Your task to perform on an android device: change text size in settings app Image 0: 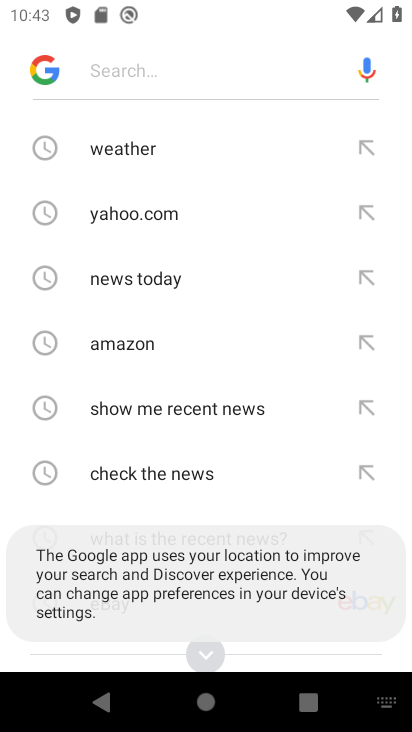
Step 0: press home button
Your task to perform on an android device: change text size in settings app Image 1: 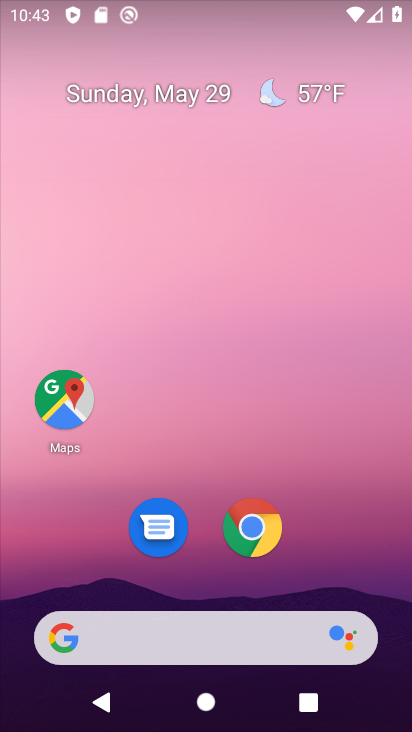
Step 1: drag from (334, 540) to (269, 80)
Your task to perform on an android device: change text size in settings app Image 2: 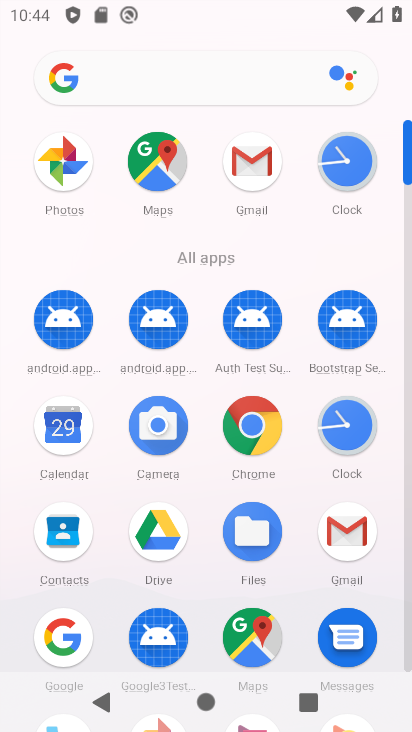
Step 2: drag from (306, 271) to (351, 135)
Your task to perform on an android device: change text size in settings app Image 3: 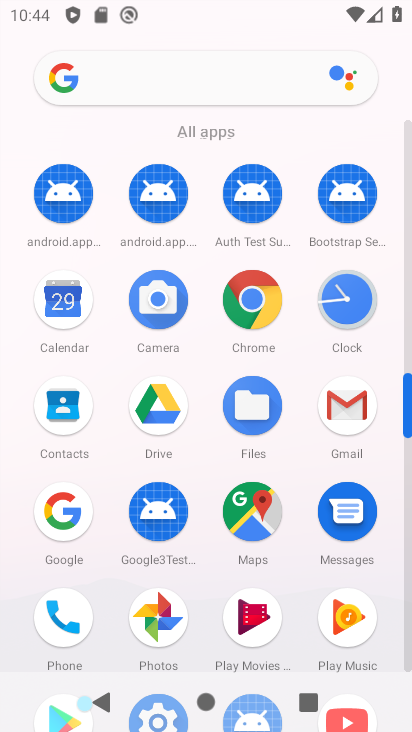
Step 3: drag from (291, 580) to (307, 359)
Your task to perform on an android device: change text size in settings app Image 4: 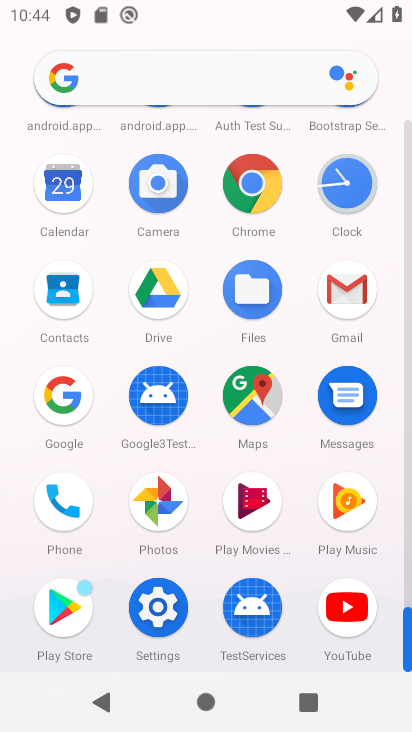
Step 4: click (156, 608)
Your task to perform on an android device: change text size in settings app Image 5: 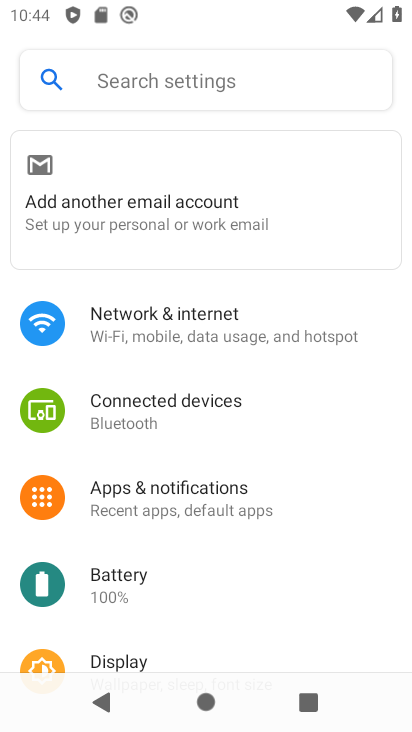
Step 5: drag from (166, 559) to (235, 428)
Your task to perform on an android device: change text size in settings app Image 6: 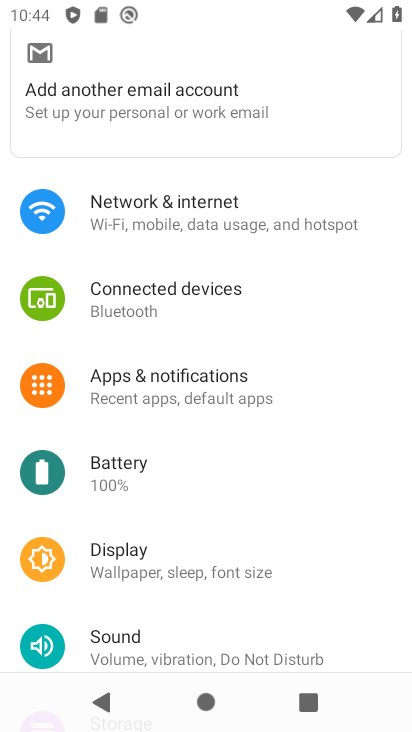
Step 6: drag from (184, 531) to (235, 415)
Your task to perform on an android device: change text size in settings app Image 7: 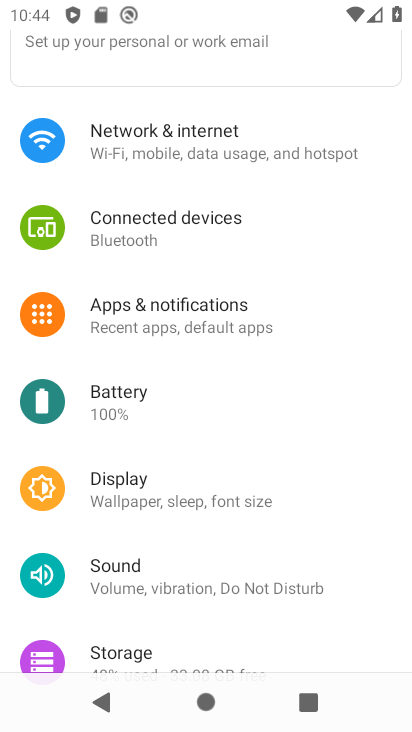
Step 7: drag from (163, 554) to (250, 410)
Your task to perform on an android device: change text size in settings app Image 8: 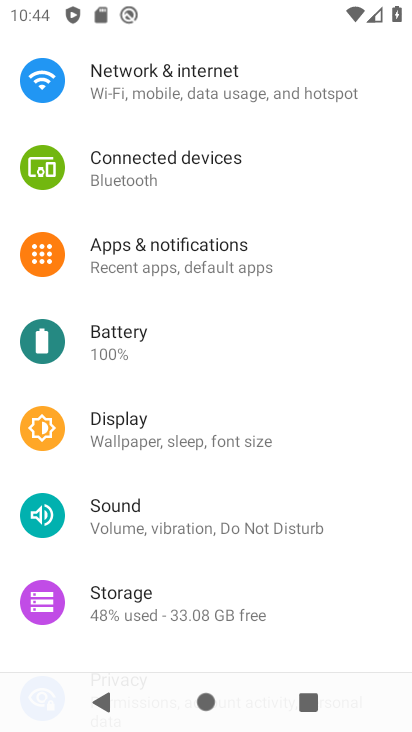
Step 8: drag from (158, 571) to (274, 374)
Your task to perform on an android device: change text size in settings app Image 9: 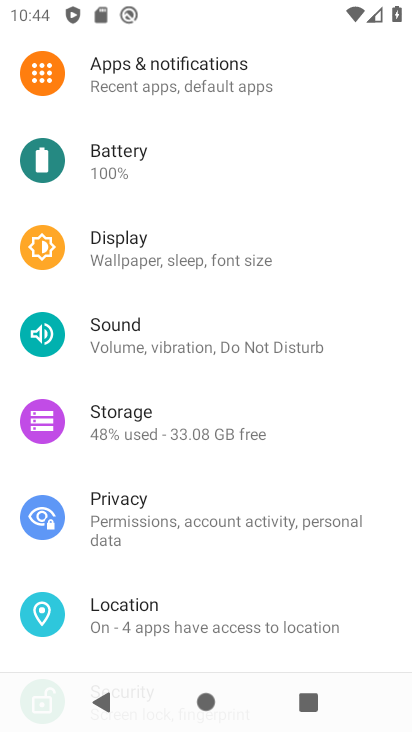
Step 9: drag from (171, 481) to (223, 352)
Your task to perform on an android device: change text size in settings app Image 10: 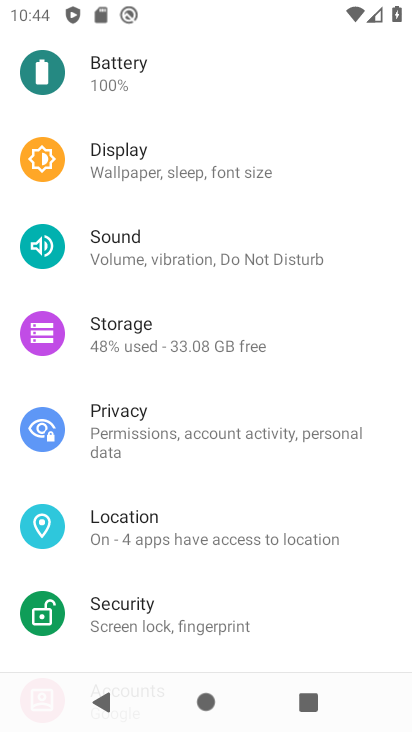
Step 10: drag from (173, 474) to (250, 311)
Your task to perform on an android device: change text size in settings app Image 11: 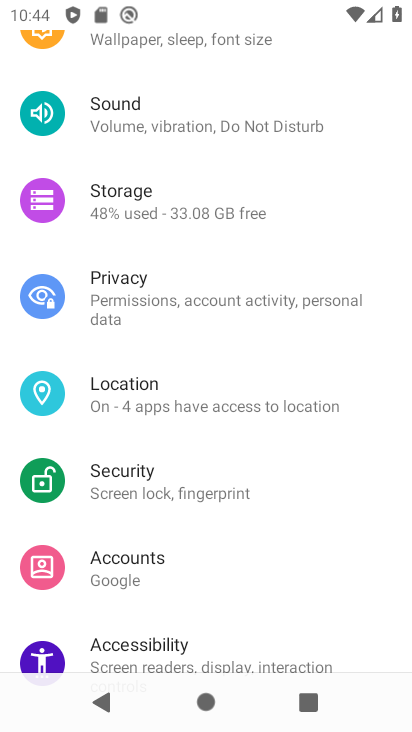
Step 11: drag from (193, 450) to (271, 334)
Your task to perform on an android device: change text size in settings app Image 12: 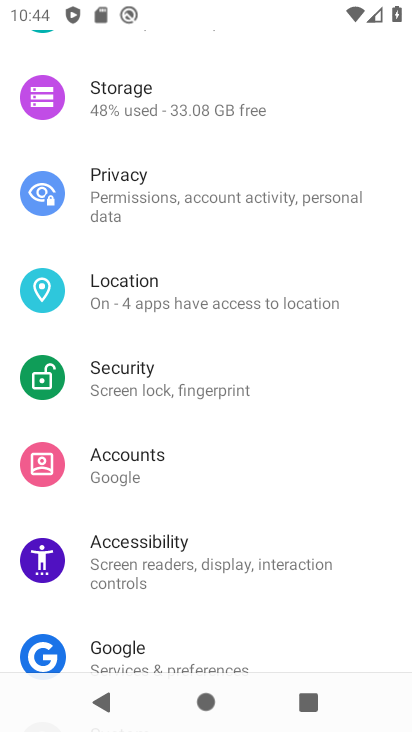
Step 12: click (189, 555)
Your task to perform on an android device: change text size in settings app Image 13: 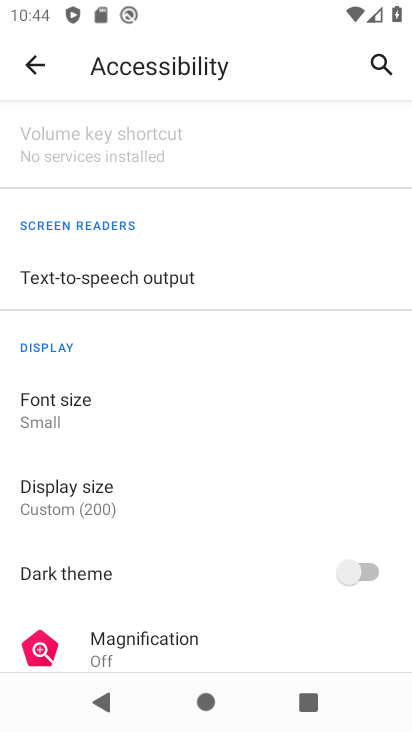
Step 13: click (118, 403)
Your task to perform on an android device: change text size in settings app Image 14: 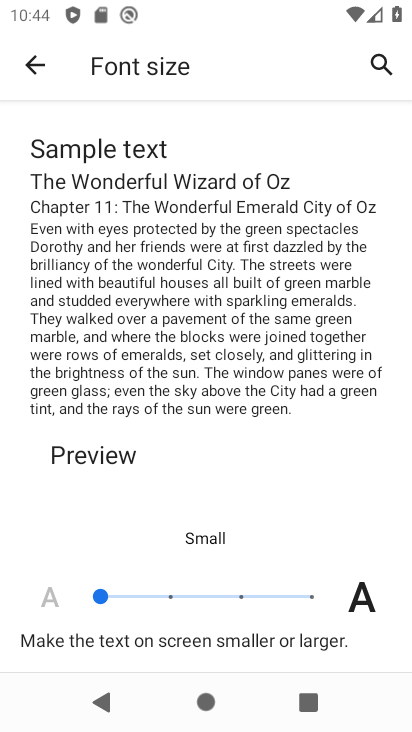
Step 14: click (170, 588)
Your task to perform on an android device: change text size in settings app Image 15: 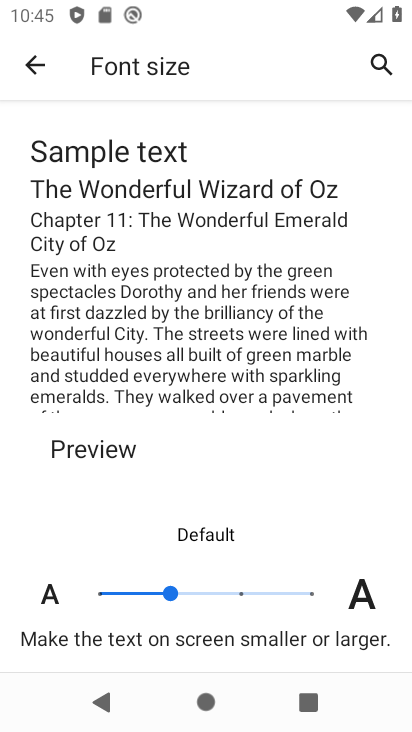
Step 15: task complete